Your task to perform on an android device: delete the emails in spam in the gmail app Image 0: 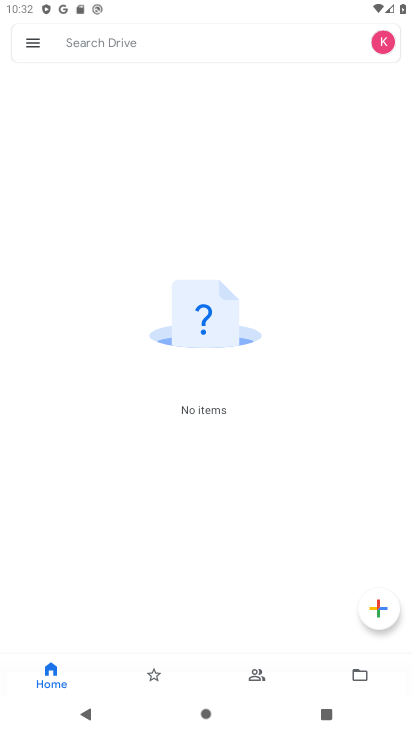
Step 0: press home button
Your task to perform on an android device: delete the emails in spam in the gmail app Image 1: 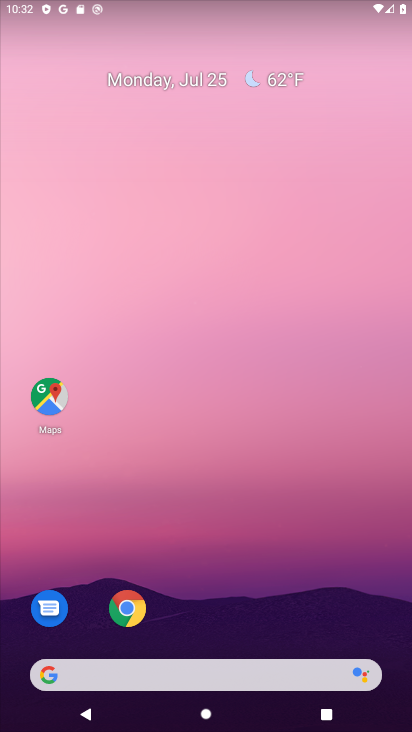
Step 1: drag from (328, 500) to (301, 30)
Your task to perform on an android device: delete the emails in spam in the gmail app Image 2: 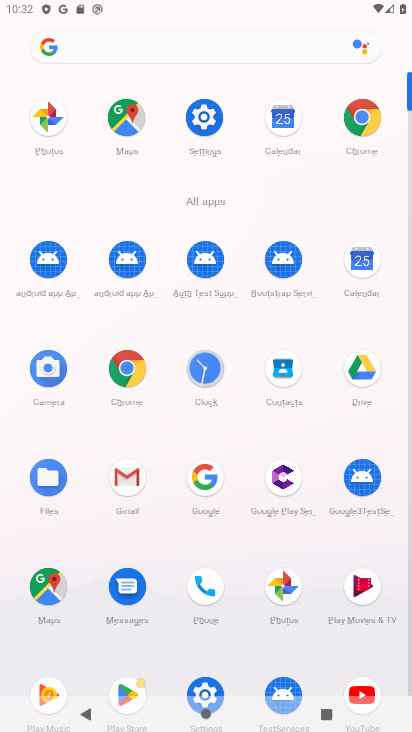
Step 2: click (128, 476)
Your task to perform on an android device: delete the emails in spam in the gmail app Image 3: 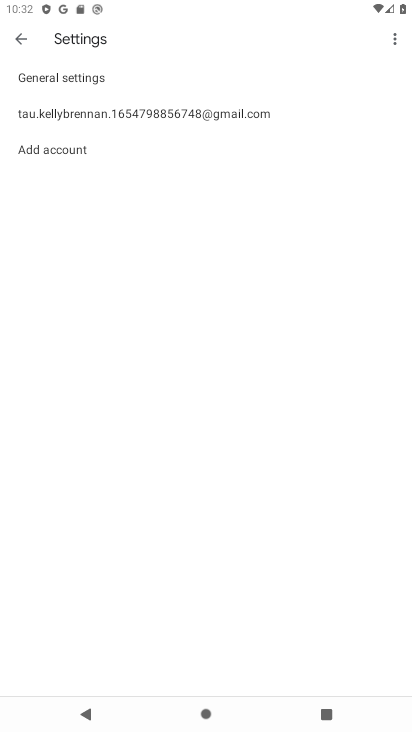
Step 3: click (12, 37)
Your task to perform on an android device: delete the emails in spam in the gmail app Image 4: 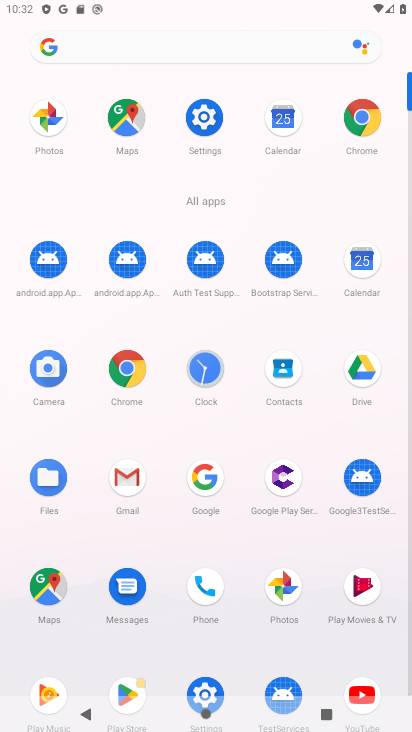
Step 4: click (123, 476)
Your task to perform on an android device: delete the emails in spam in the gmail app Image 5: 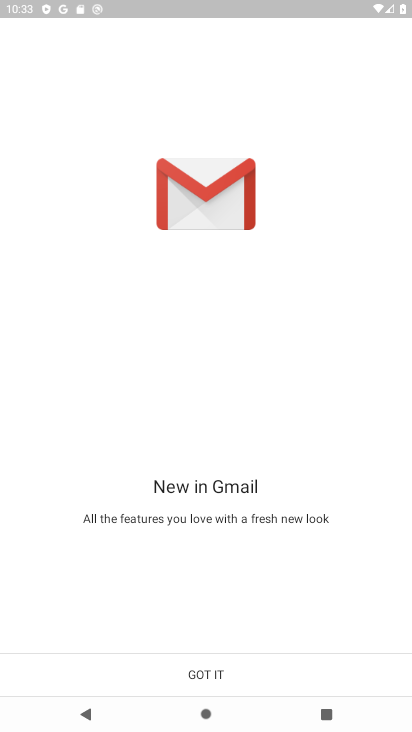
Step 5: click (200, 676)
Your task to perform on an android device: delete the emails in spam in the gmail app Image 6: 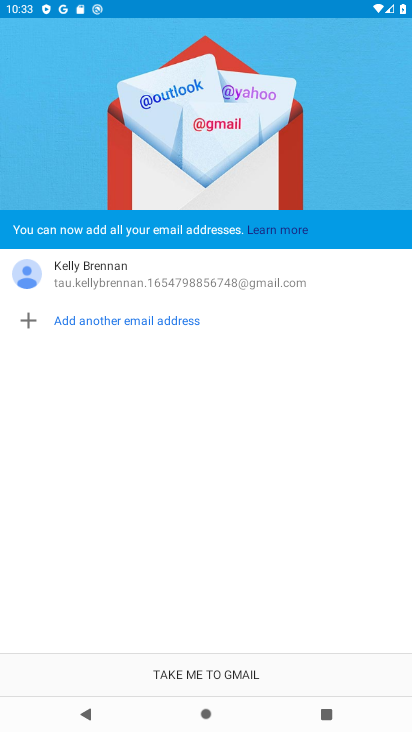
Step 6: click (200, 676)
Your task to perform on an android device: delete the emails in spam in the gmail app Image 7: 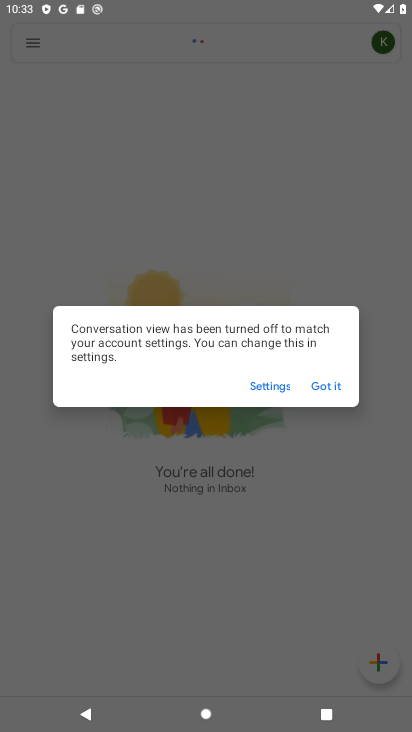
Step 7: click (326, 388)
Your task to perform on an android device: delete the emails in spam in the gmail app Image 8: 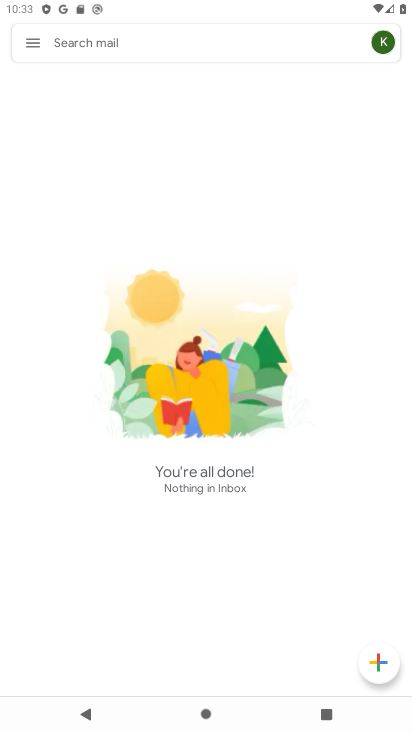
Step 8: click (30, 41)
Your task to perform on an android device: delete the emails in spam in the gmail app Image 9: 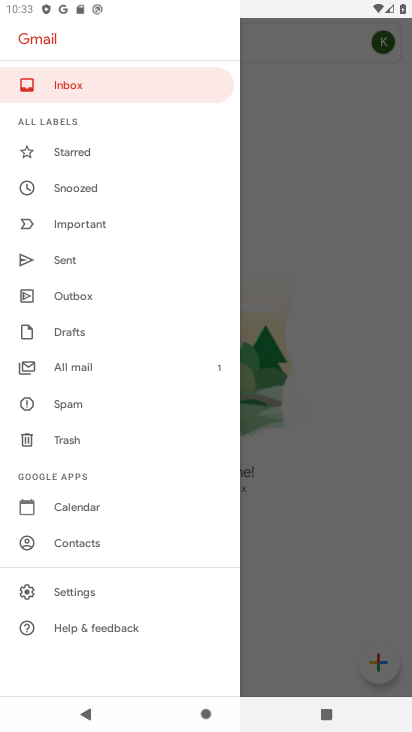
Step 9: click (89, 404)
Your task to perform on an android device: delete the emails in spam in the gmail app Image 10: 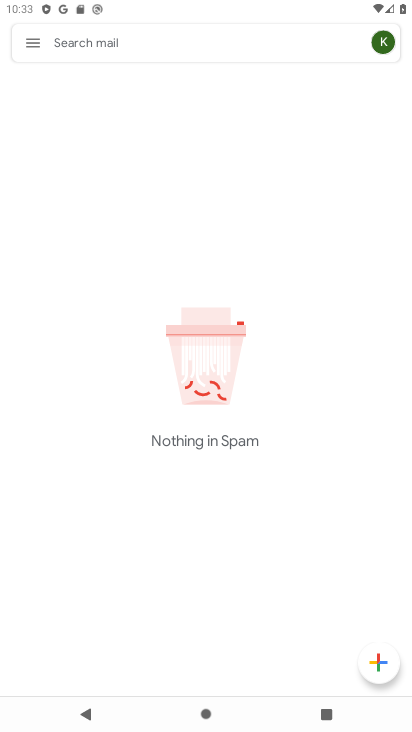
Step 10: task complete